Your task to perform on an android device: Open wifi settings Image 0: 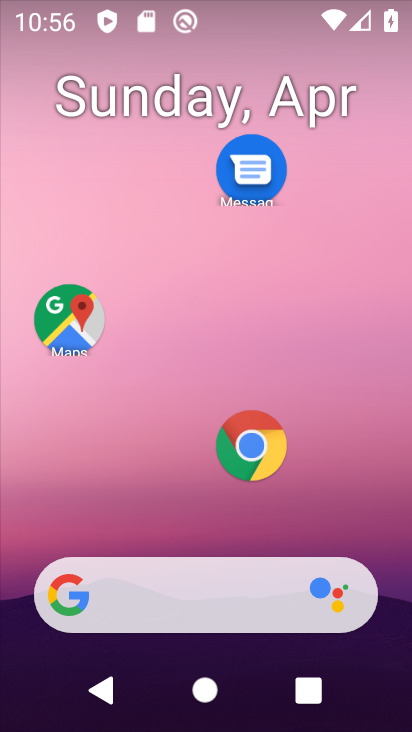
Step 0: drag from (171, 606) to (271, 131)
Your task to perform on an android device: Open wifi settings Image 1: 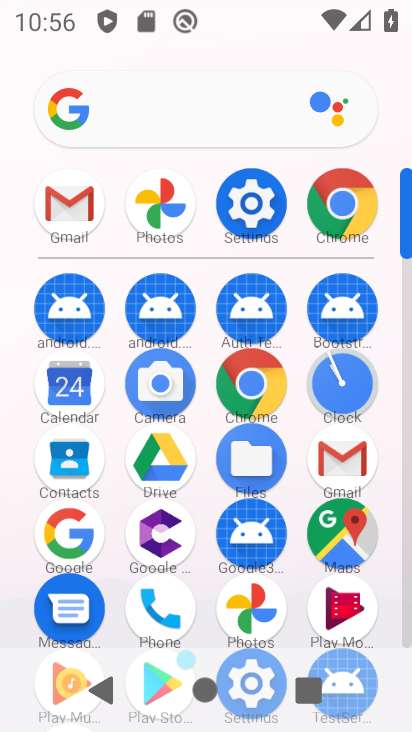
Step 1: click (263, 212)
Your task to perform on an android device: Open wifi settings Image 2: 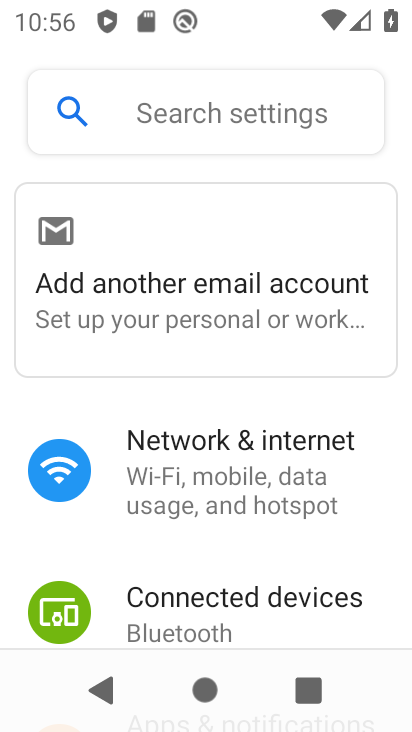
Step 2: click (197, 473)
Your task to perform on an android device: Open wifi settings Image 3: 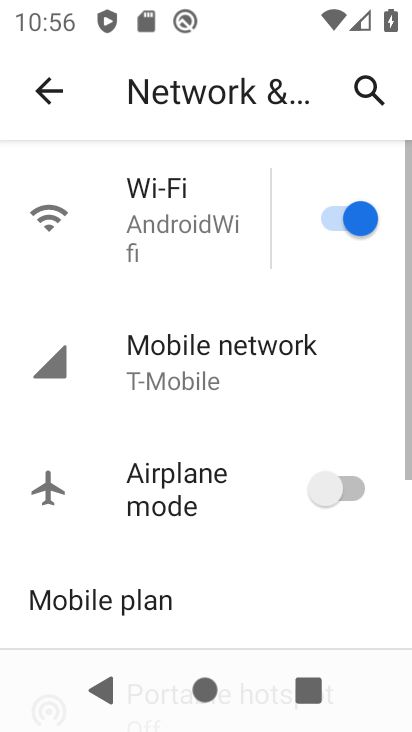
Step 3: click (153, 220)
Your task to perform on an android device: Open wifi settings Image 4: 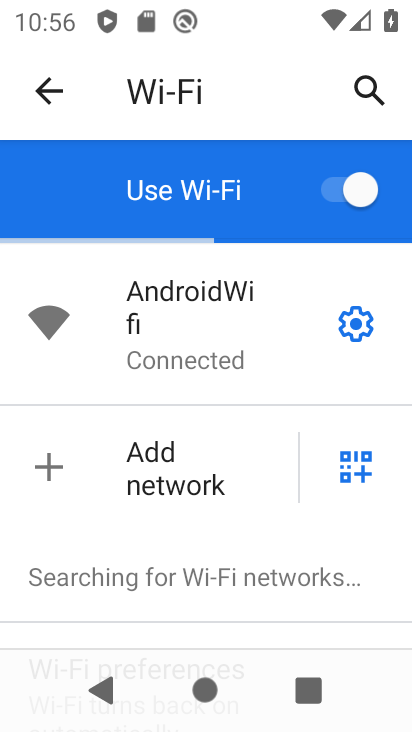
Step 4: task complete